Your task to perform on an android device: Check the news Image 0: 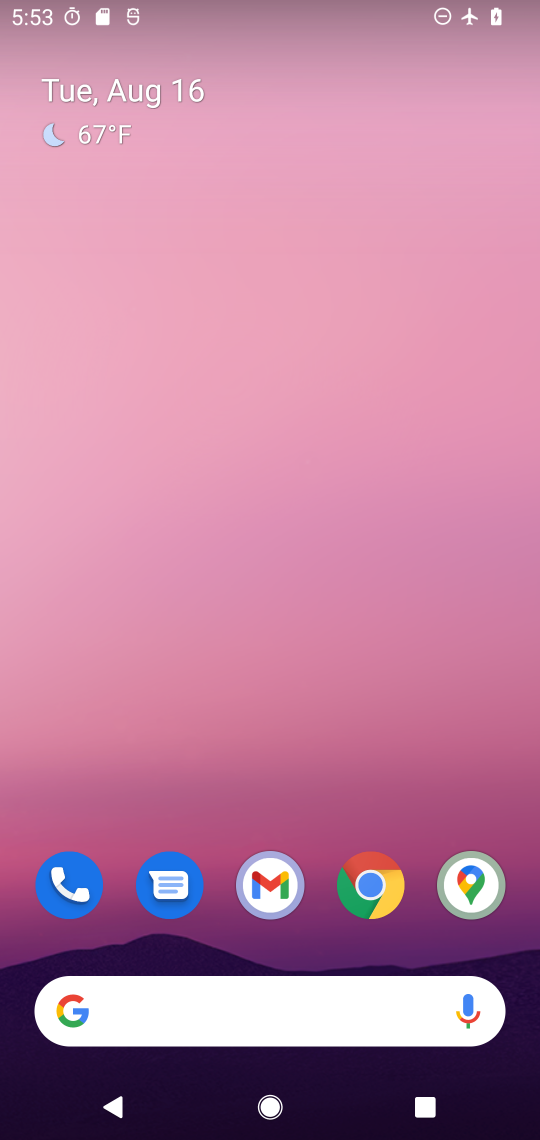
Step 0: drag from (270, 732) to (260, 84)
Your task to perform on an android device: Check the news Image 1: 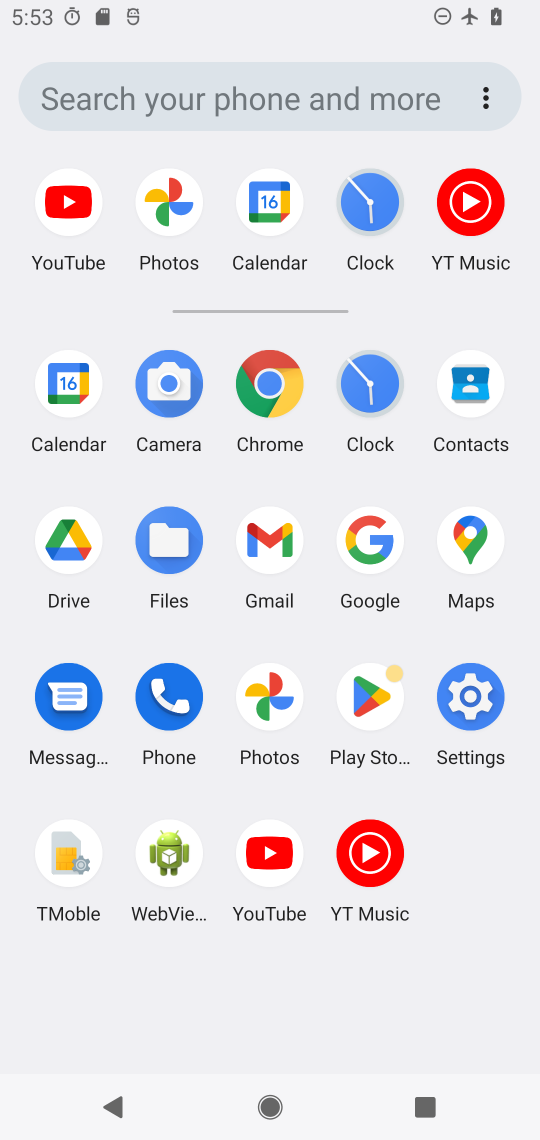
Step 1: click (261, 364)
Your task to perform on an android device: Check the news Image 2: 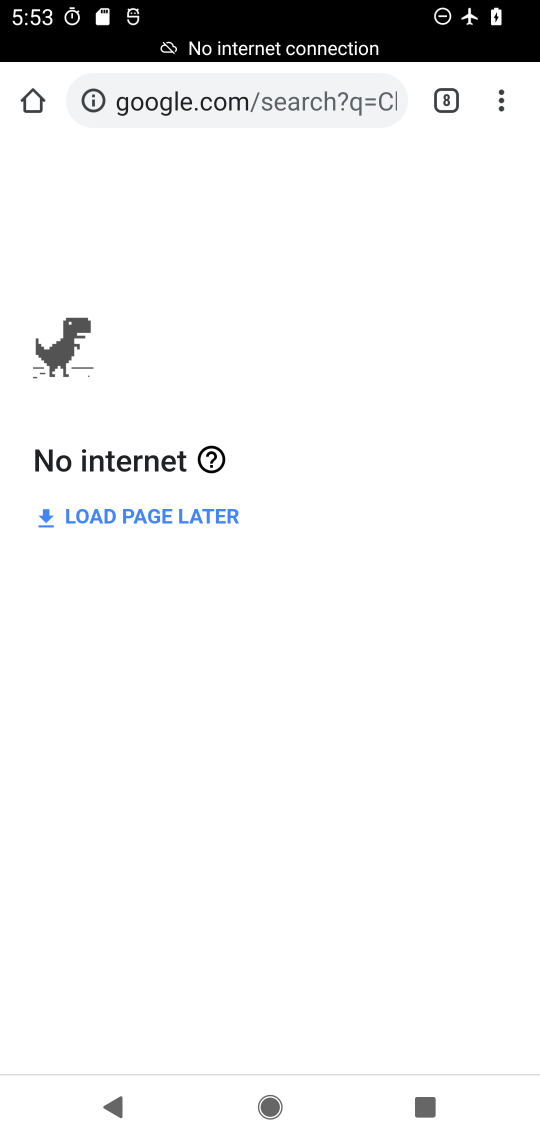
Step 2: click (506, 96)
Your task to perform on an android device: Check the news Image 3: 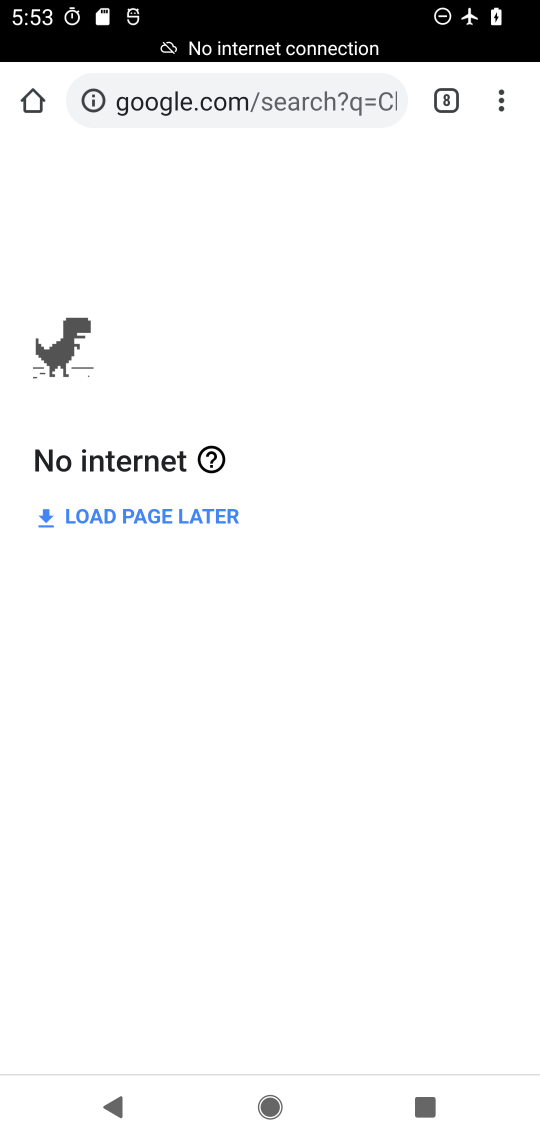
Step 3: click (492, 99)
Your task to perform on an android device: Check the news Image 4: 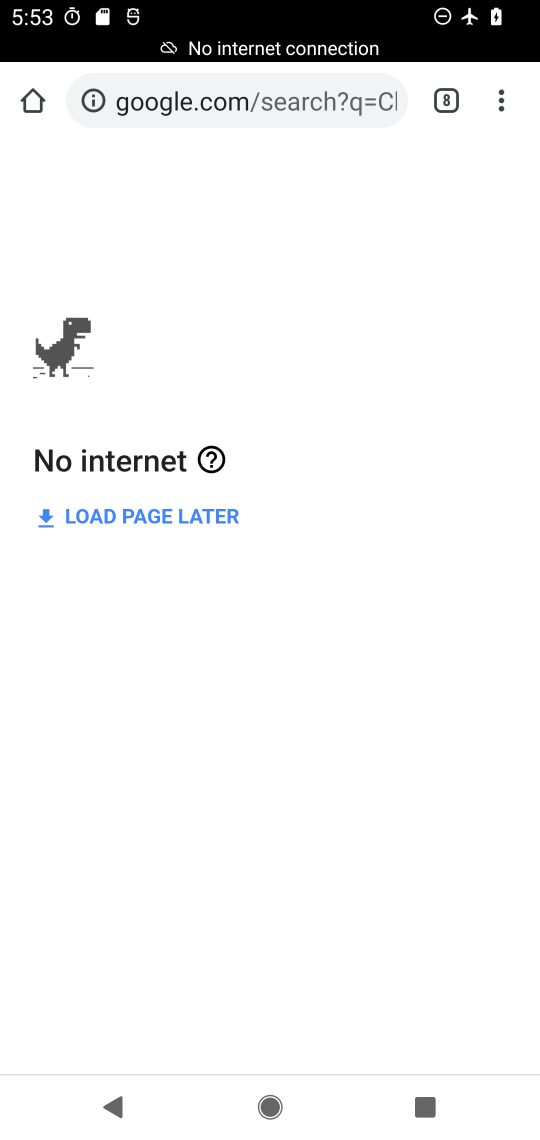
Step 4: click (492, 99)
Your task to perform on an android device: Check the news Image 5: 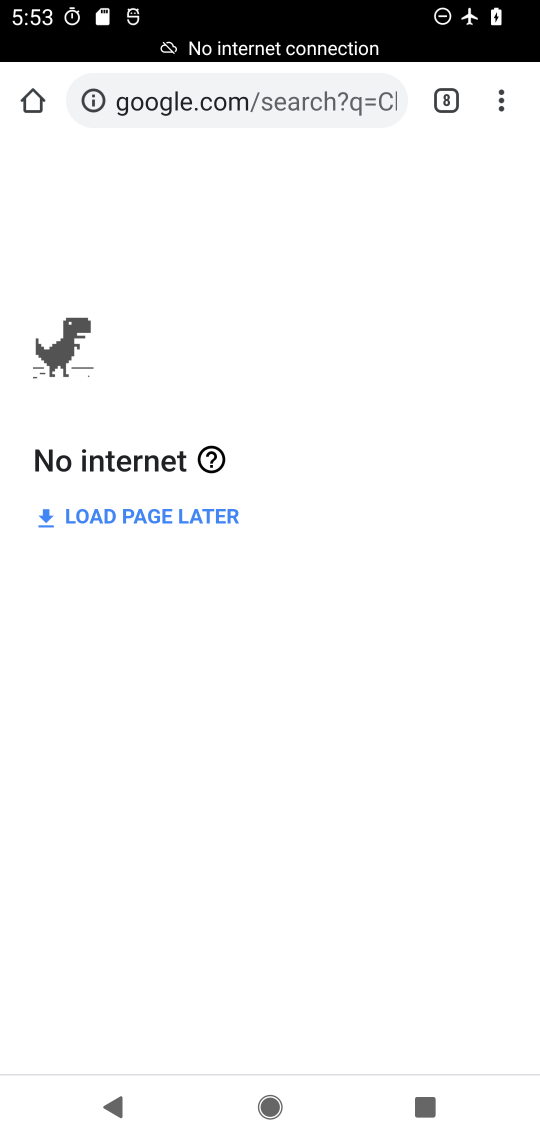
Step 5: click (492, 99)
Your task to perform on an android device: Check the news Image 6: 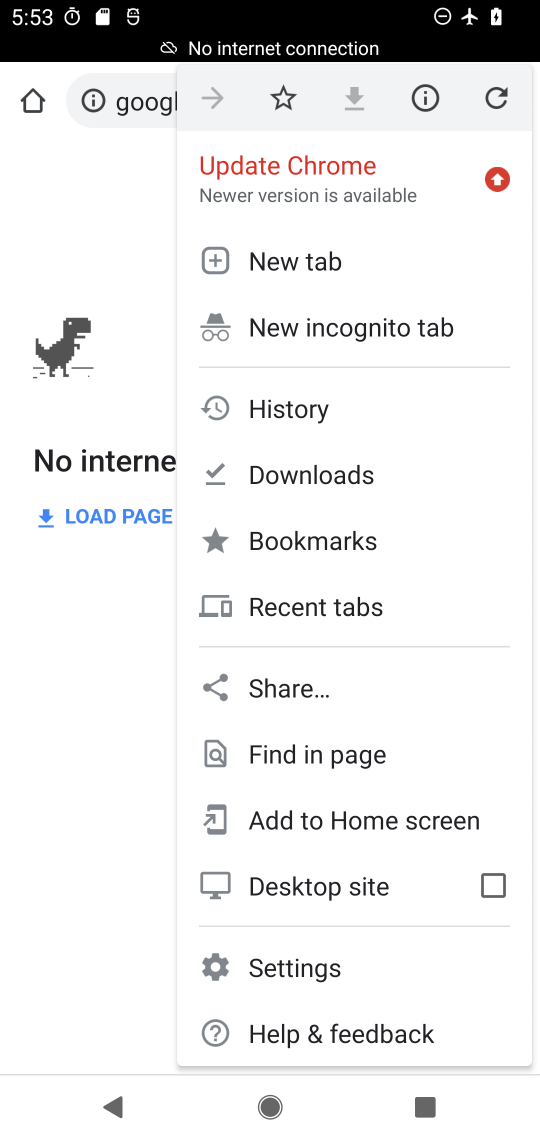
Step 6: click (287, 264)
Your task to perform on an android device: Check the news Image 7: 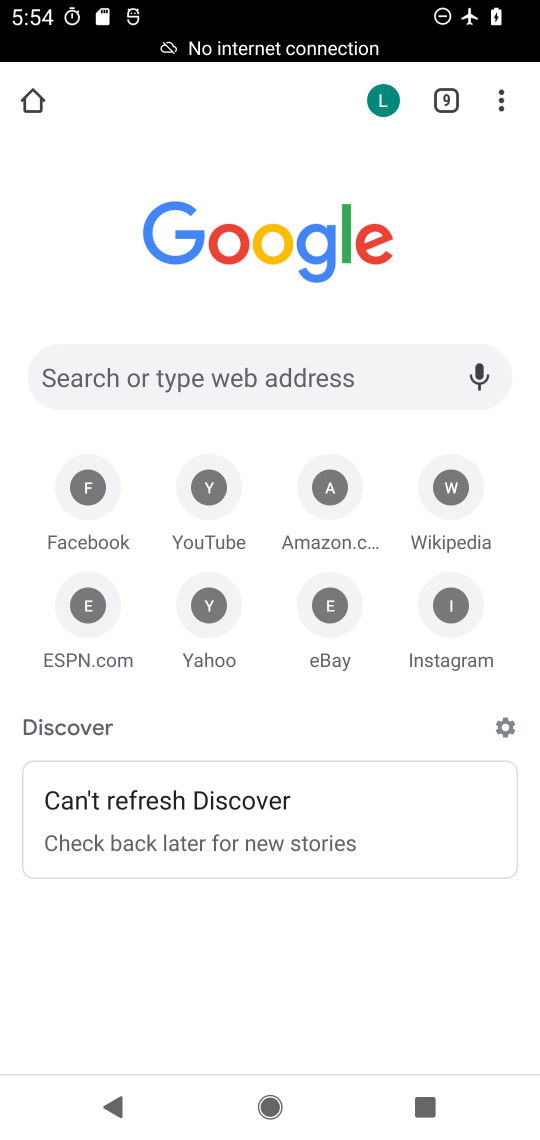
Step 7: click (253, 363)
Your task to perform on an android device: Check the news Image 8: 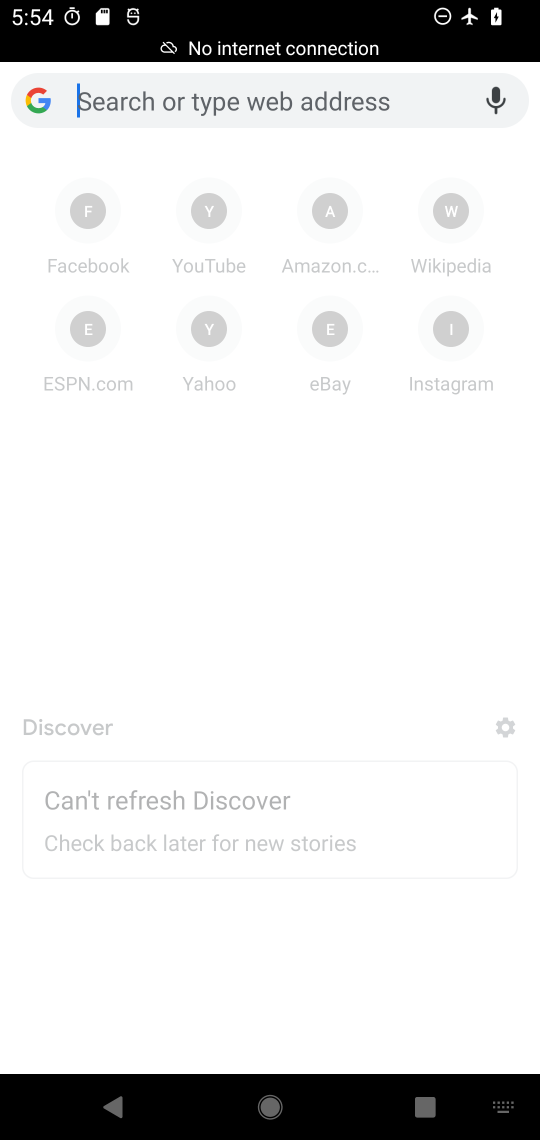
Step 8: type "Check the news "
Your task to perform on an android device: Check the news Image 9: 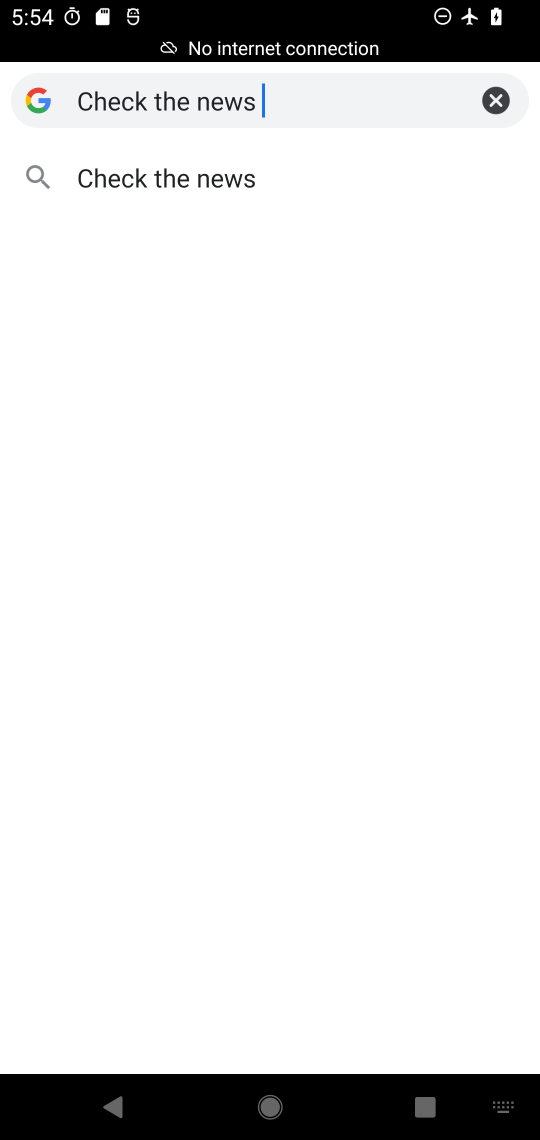
Step 9: click (209, 181)
Your task to perform on an android device: Check the news Image 10: 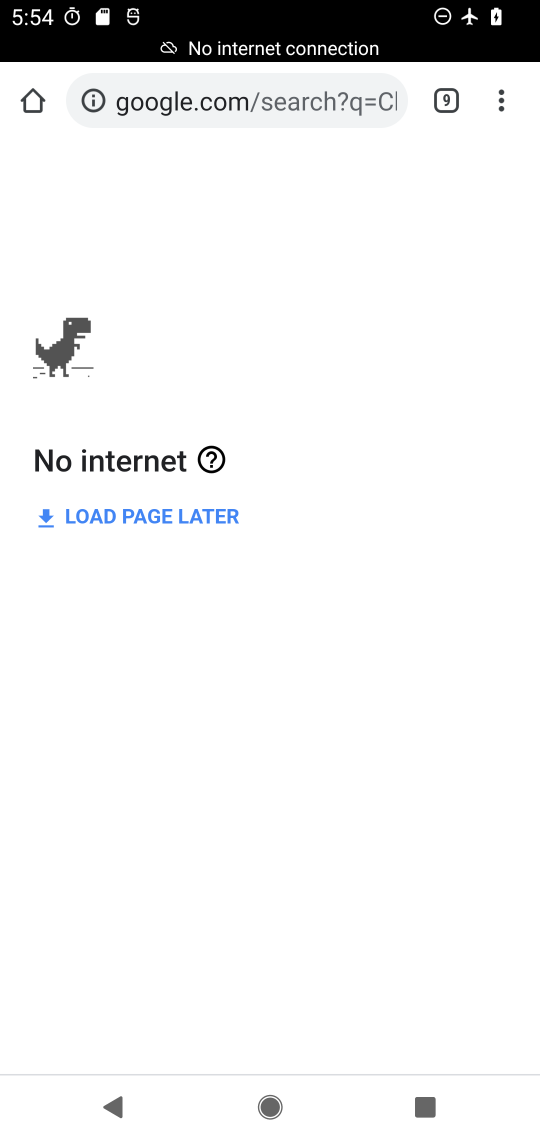
Step 10: task complete